Your task to perform on an android device: change keyboard looks Image 0: 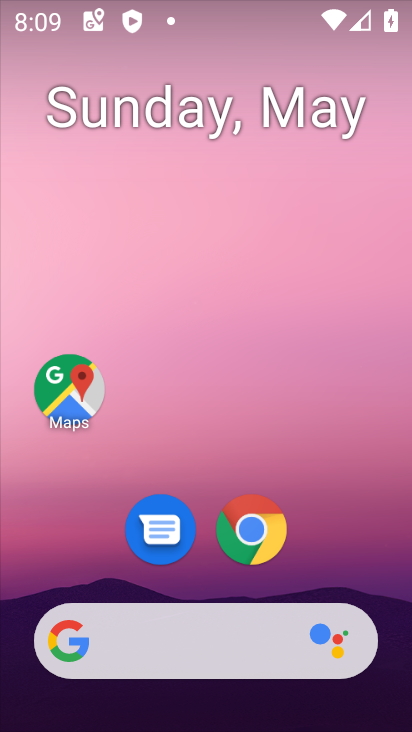
Step 0: drag from (373, 604) to (275, 48)
Your task to perform on an android device: change keyboard looks Image 1: 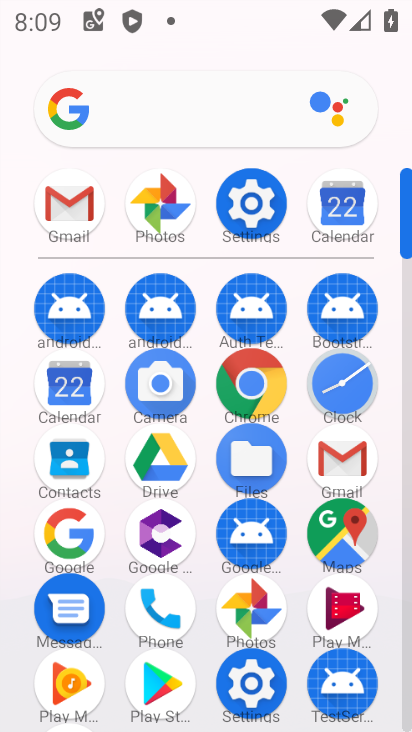
Step 1: click (256, 209)
Your task to perform on an android device: change keyboard looks Image 2: 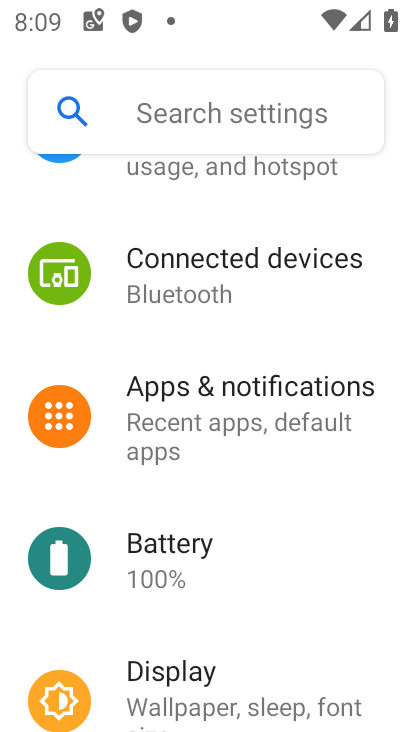
Step 2: drag from (295, 572) to (273, 66)
Your task to perform on an android device: change keyboard looks Image 3: 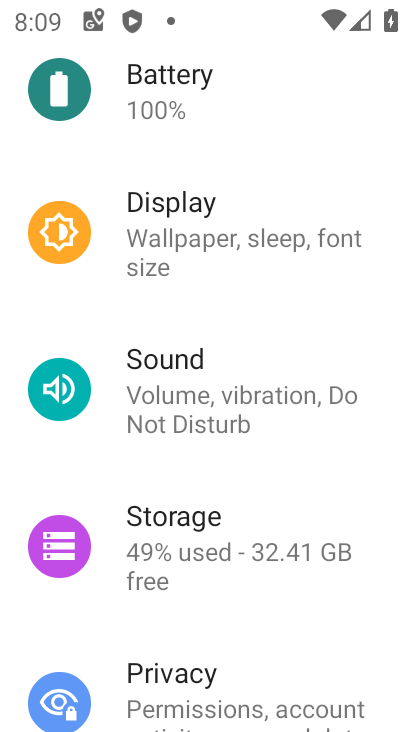
Step 3: drag from (269, 521) to (265, 34)
Your task to perform on an android device: change keyboard looks Image 4: 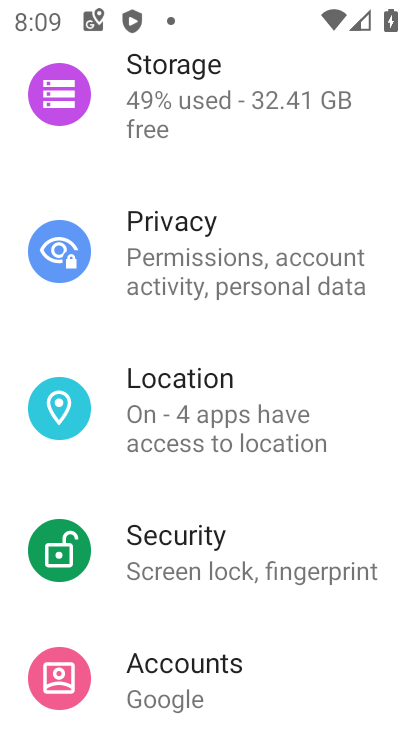
Step 4: drag from (239, 520) to (211, 55)
Your task to perform on an android device: change keyboard looks Image 5: 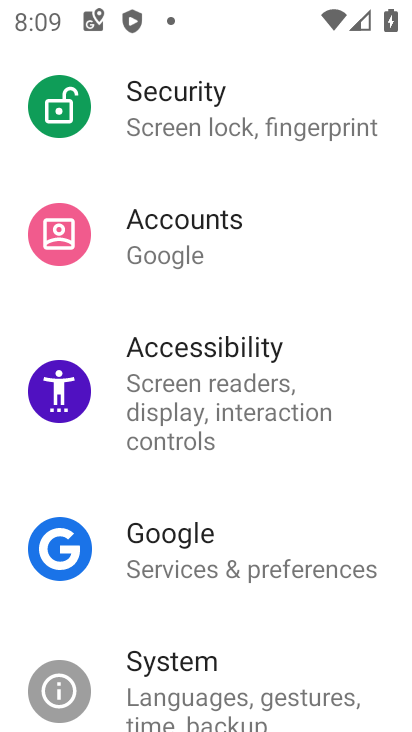
Step 5: drag from (186, 562) to (147, 89)
Your task to perform on an android device: change keyboard looks Image 6: 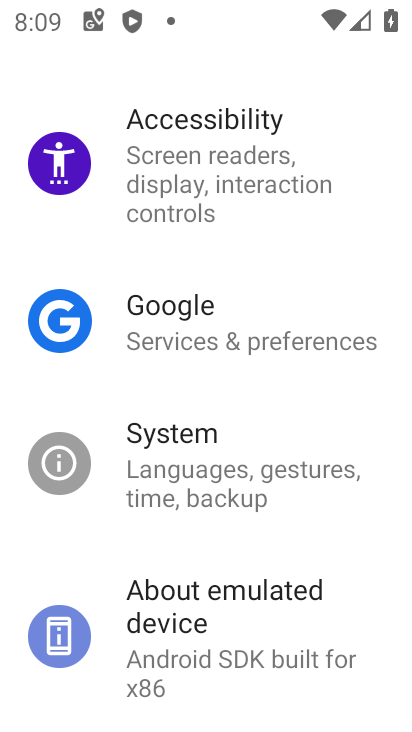
Step 6: drag from (229, 588) to (207, 89)
Your task to perform on an android device: change keyboard looks Image 7: 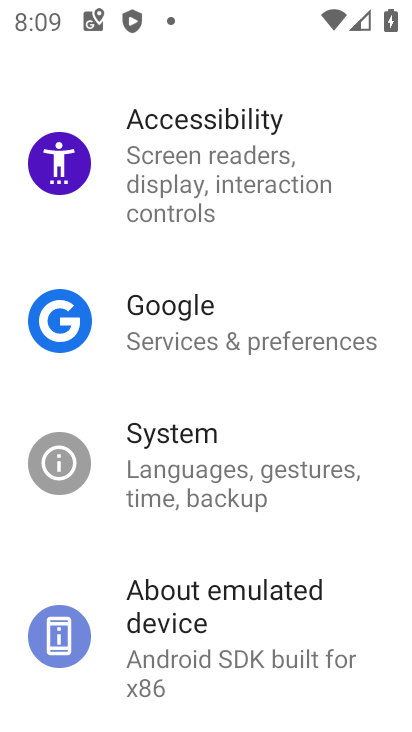
Step 7: click (135, 473)
Your task to perform on an android device: change keyboard looks Image 8: 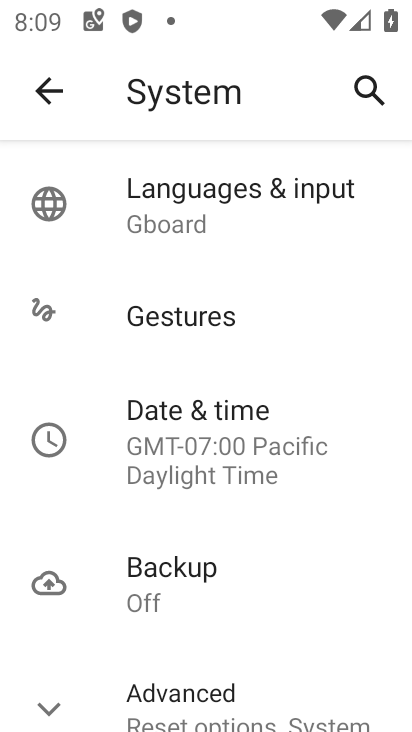
Step 8: click (152, 217)
Your task to perform on an android device: change keyboard looks Image 9: 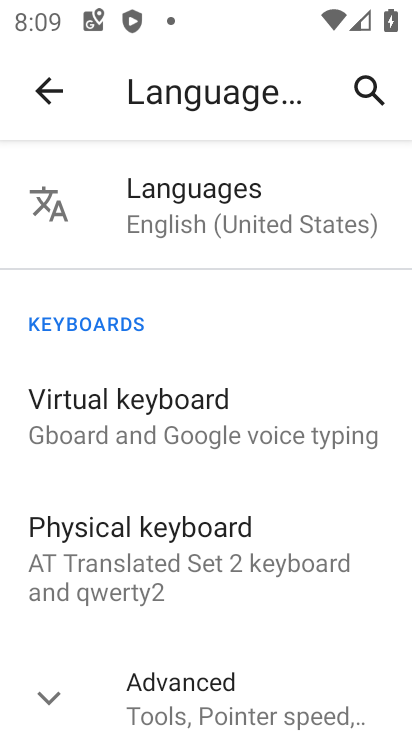
Step 9: click (105, 444)
Your task to perform on an android device: change keyboard looks Image 10: 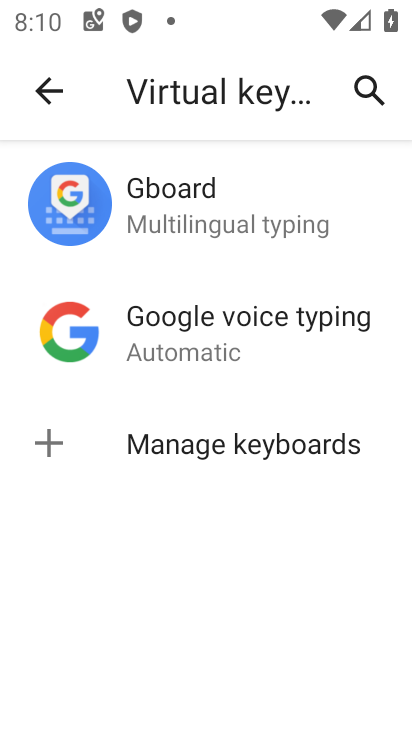
Step 10: click (182, 224)
Your task to perform on an android device: change keyboard looks Image 11: 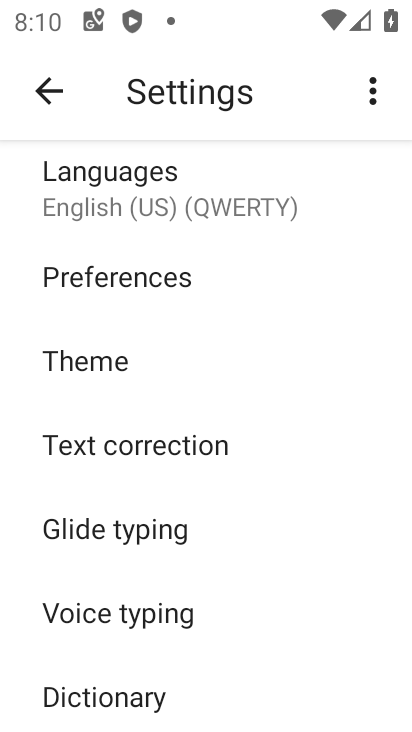
Step 11: click (84, 354)
Your task to perform on an android device: change keyboard looks Image 12: 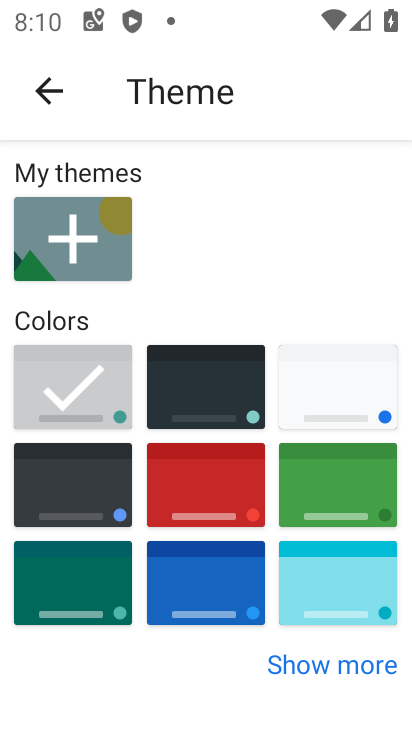
Step 12: click (208, 491)
Your task to perform on an android device: change keyboard looks Image 13: 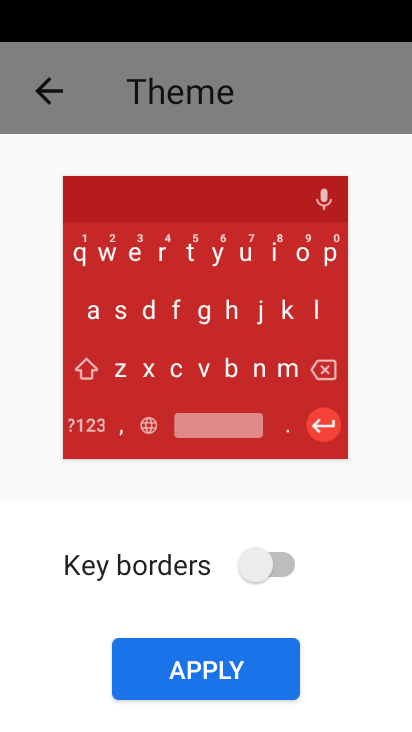
Step 13: click (256, 570)
Your task to perform on an android device: change keyboard looks Image 14: 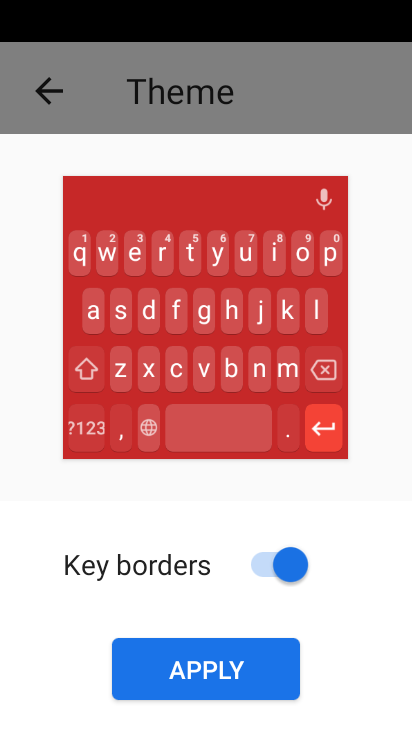
Step 14: click (221, 668)
Your task to perform on an android device: change keyboard looks Image 15: 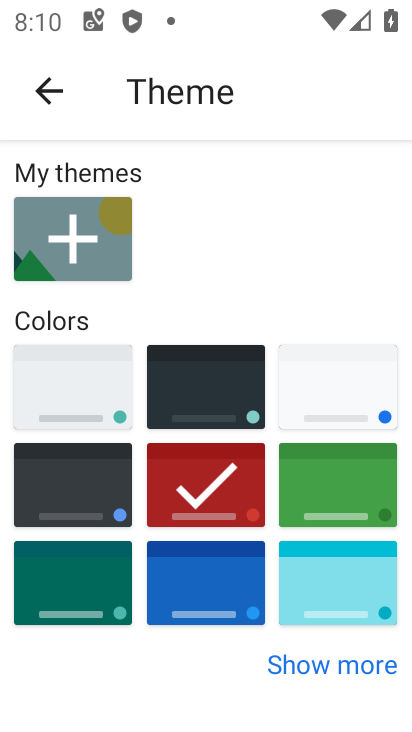
Step 15: task complete